Your task to perform on an android device: Open Maps and search for coffee Image 0: 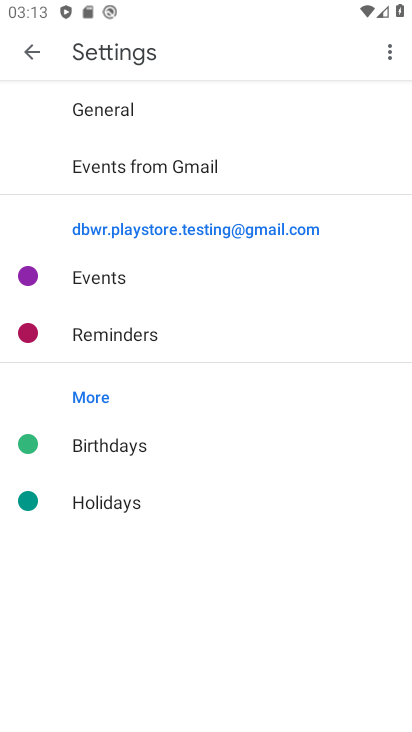
Step 0: press home button
Your task to perform on an android device: Open Maps and search for coffee Image 1: 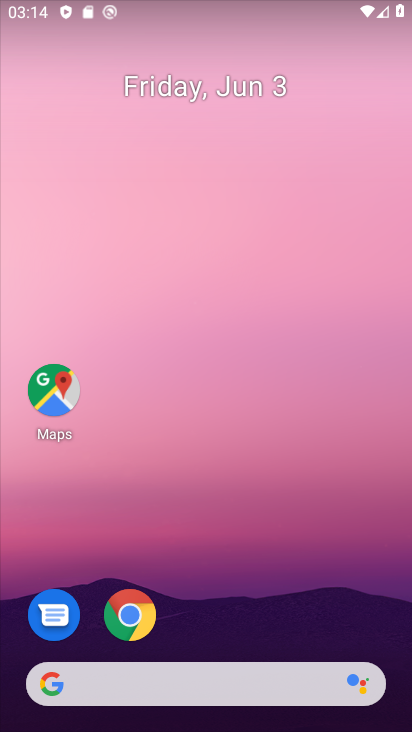
Step 1: click (49, 402)
Your task to perform on an android device: Open Maps and search for coffee Image 2: 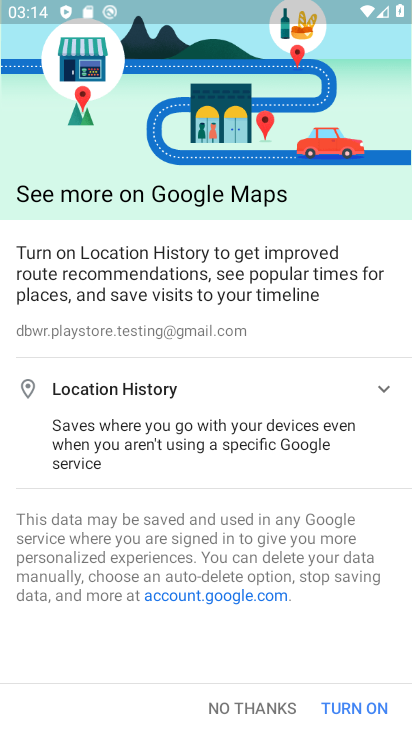
Step 2: click (239, 705)
Your task to perform on an android device: Open Maps and search for coffee Image 3: 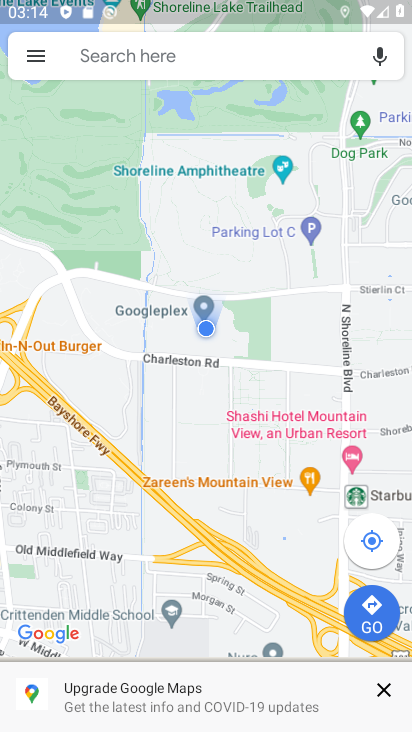
Step 3: click (96, 48)
Your task to perform on an android device: Open Maps and search for coffee Image 4: 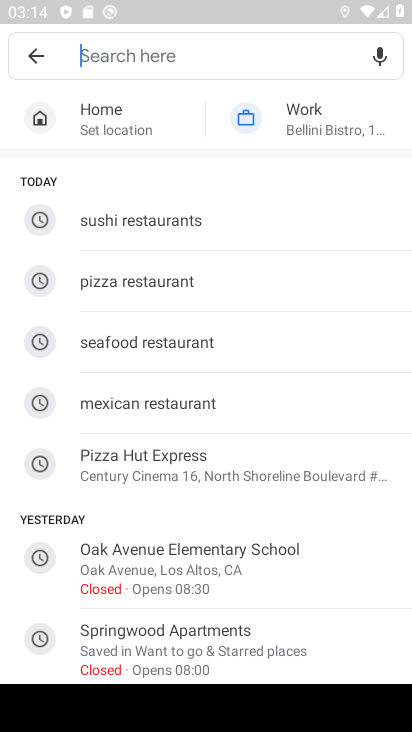
Step 4: type "coffee"
Your task to perform on an android device: Open Maps and search for coffee Image 5: 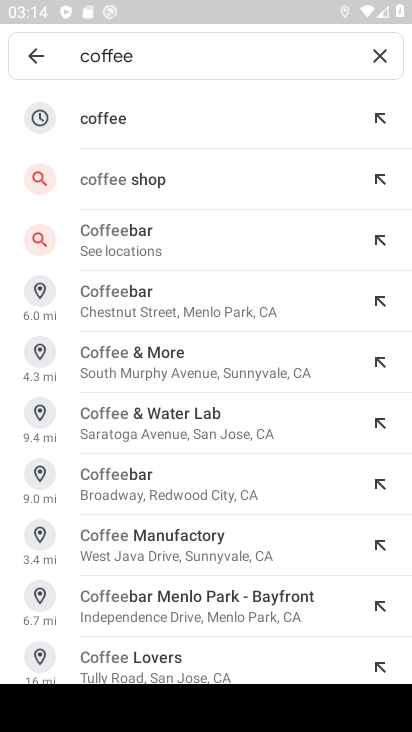
Step 5: click (114, 112)
Your task to perform on an android device: Open Maps and search for coffee Image 6: 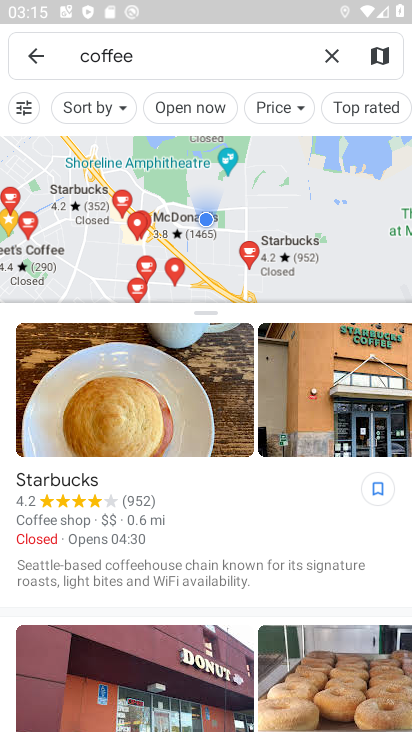
Step 6: task complete